Your task to perform on an android device: Open the calendar and show me this week's events? Image 0: 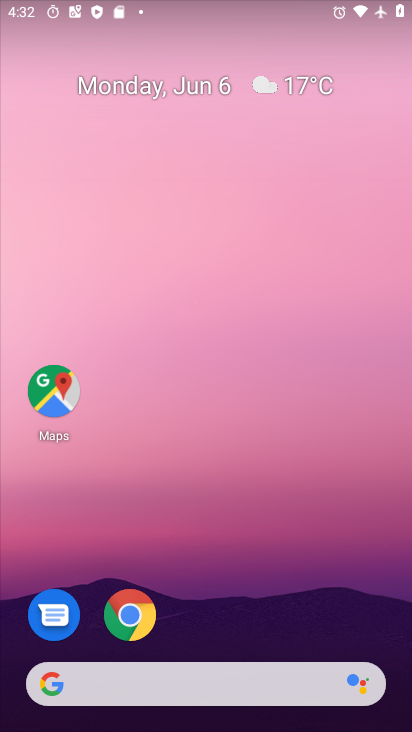
Step 0: drag from (254, 553) to (214, 8)
Your task to perform on an android device: Open the calendar and show me this week's events? Image 1: 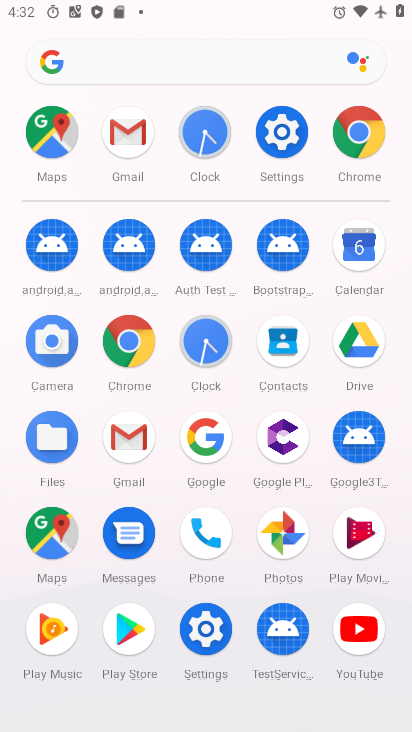
Step 1: click (361, 240)
Your task to perform on an android device: Open the calendar and show me this week's events? Image 2: 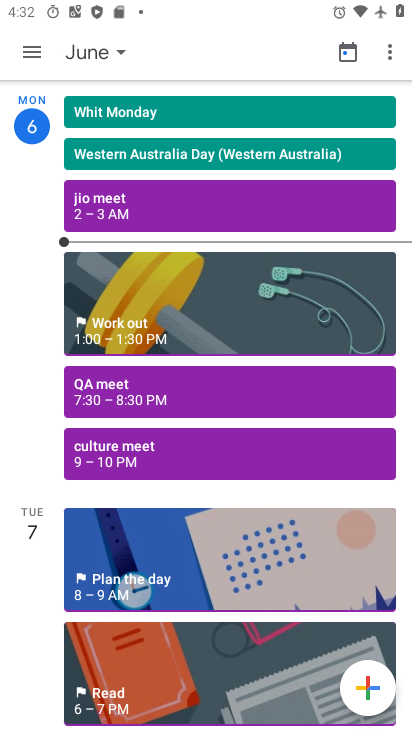
Step 2: click (39, 41)
Your task to perform on an android device: Open the calendar and show me this week's events? Image 3: 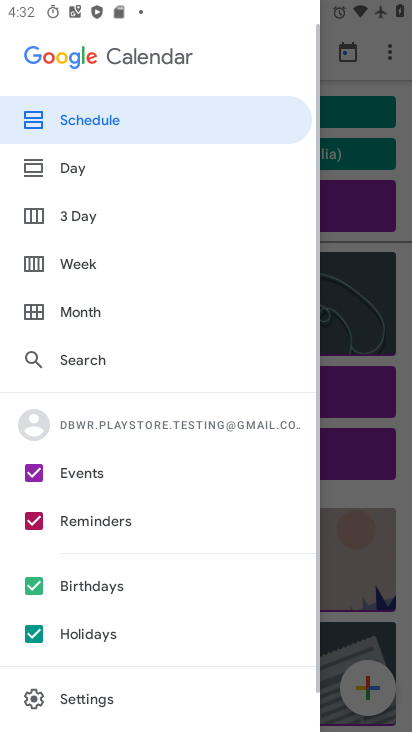
Step 3: click (86, 261)
Your task to perform on an android device: Open the calendar and show me this week's events? Image 4: 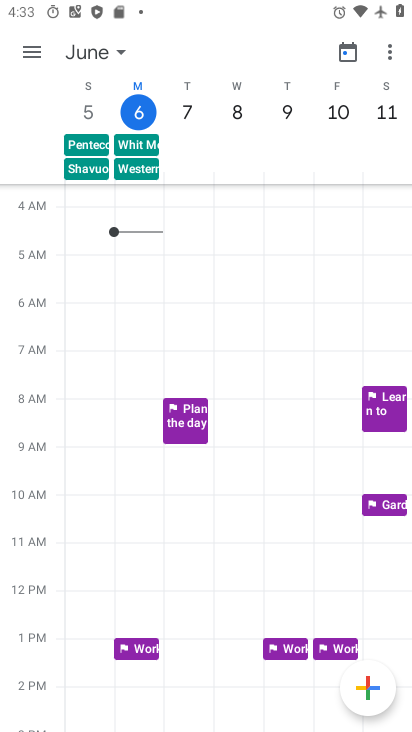
Step 4: task complete